Your task to perform on an android device: Play the last video I watched on Youtube Image 0: 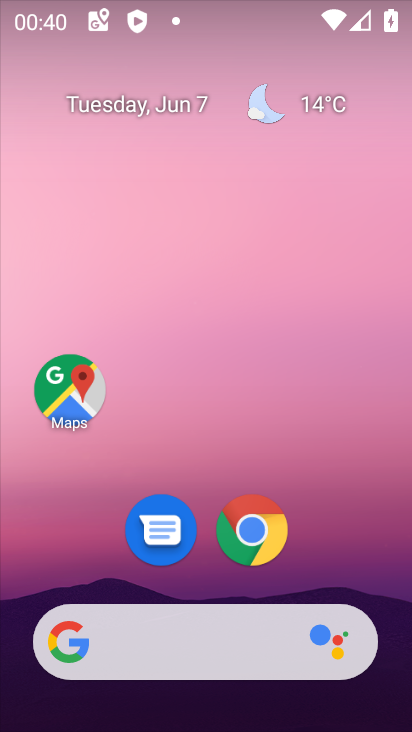
Step 0: drag from (311, 523) to (323, 207)
Your task to perform on an android device: Play the last video I watched on Youtube Image 1: 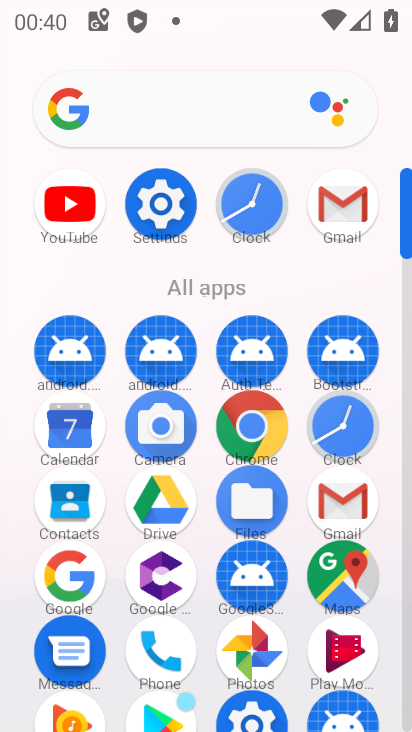
Step 1: drag from (300, 631) to (285, 290)
Your task to perform on an android device: Play the last video I watched on Youtube Image 2: 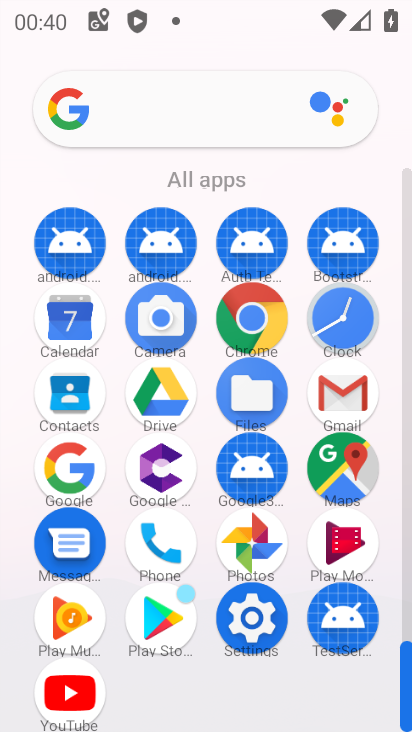
Step 2: click (62, 704)
Your task to perform on an android device: Play the last video I watched on Youtube Image 3: 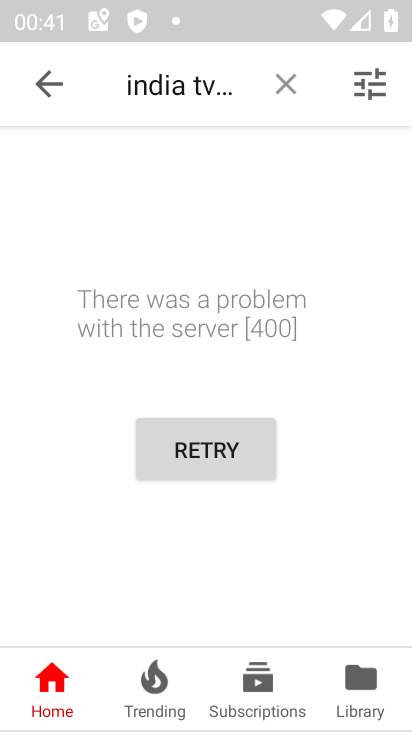
Step 3: task complete